Your task to perform on an android device: Show the shopping cart on amazon.com. Search for macbook pro 15 inch on amazon.com, select the first entry, and add it to the cart. Image 0: 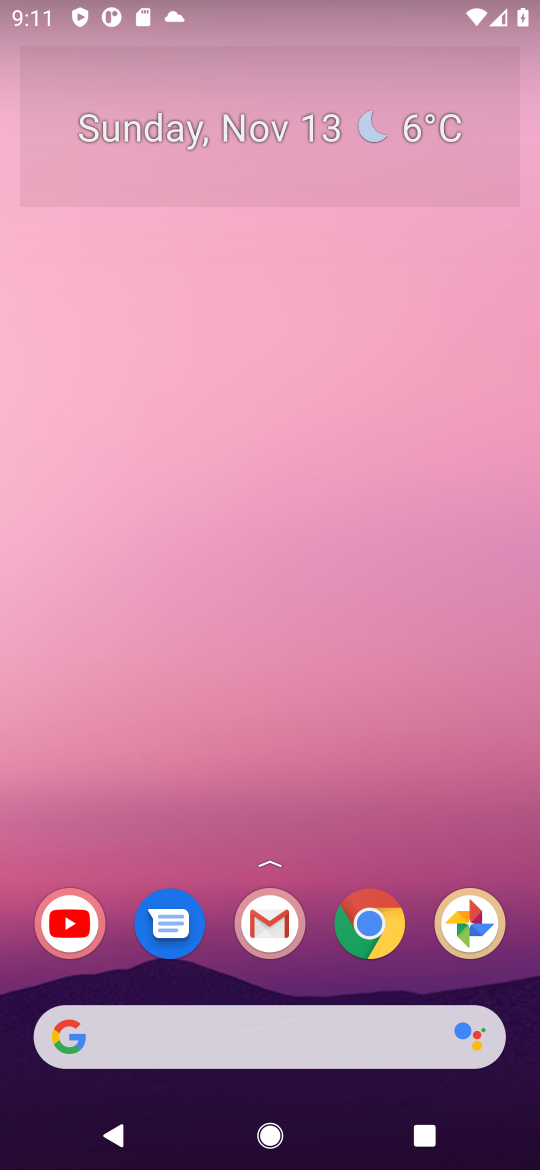
Step 0: click (391, 915)
Your task to perform on an android device: Show the shopping cart on amazon.com. Search for macbook pro 15 inch on amazon.com, select the first entry, and add it to the cart. Image 1: 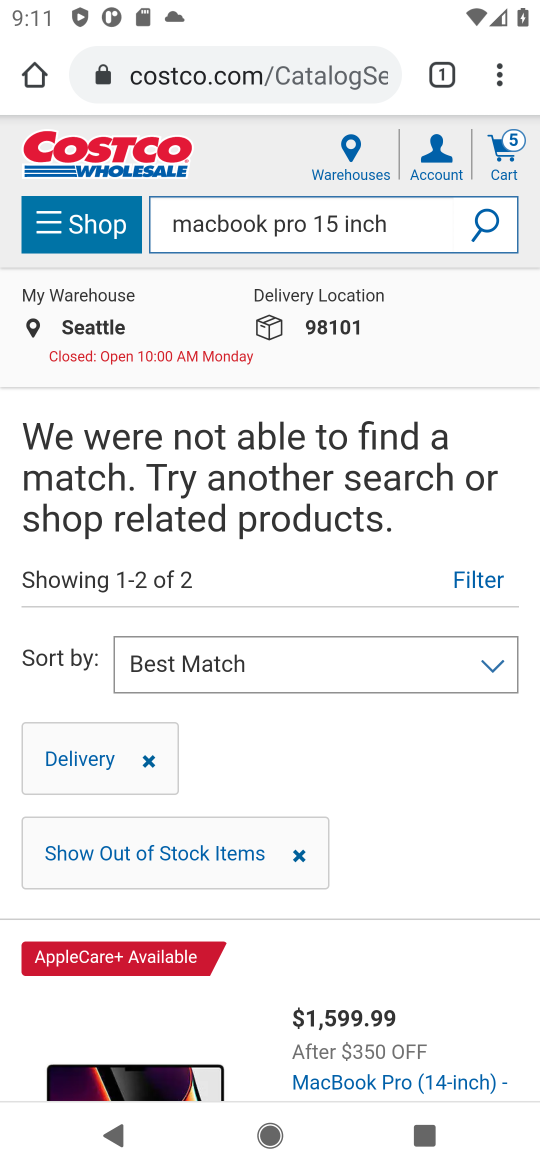
Step 1: click (303, 69)
Your task to perform on an android device: Show the shopping cart on amazon.com. Search for macbook pro 15 inch on amazon.com, select the first entry, and add it to the cart. Image 2: 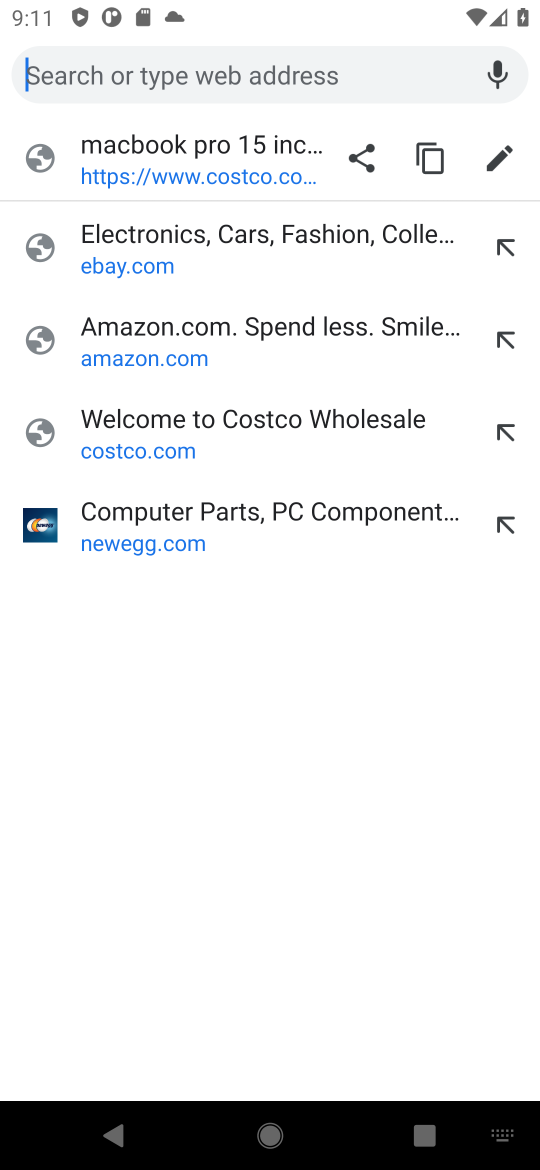
Step 2: click (251, 331)
Your task to perform on an android device: Show the shopping cart on amazon.com. Search for macbook pro 15 inch on amazon.com, select the first entry, and add it to the cart. Image 3: 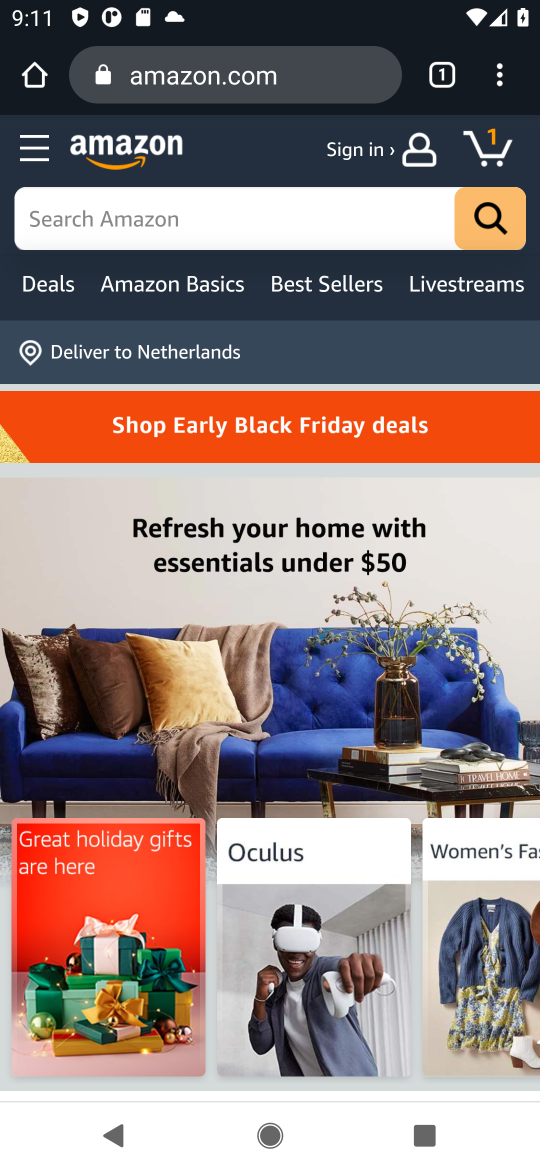
Step 3: click (248, 213)
Your task to perform on an android device: Show the shopping cart on amazon.com. Search for macbook pro 15 inch on amazon.com, select the first entry, and add it to the cart. Image 4: 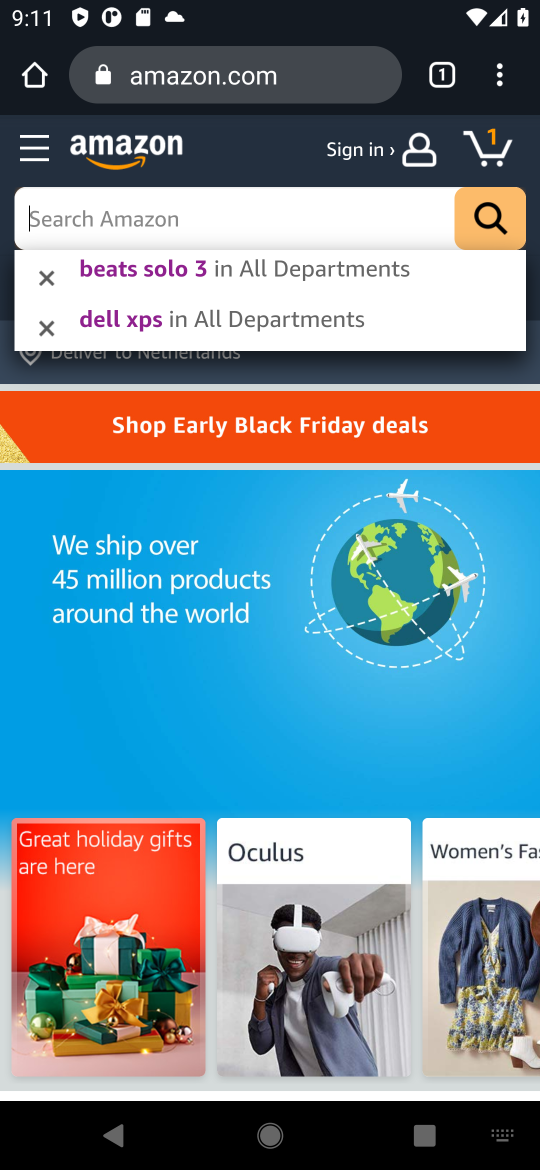
Step 4: press enter
Your task to perform on an android device: Show the shopping cart on amazon.com. Search for macbook pro 15 inch on amazon.com, select the first entry, and add it to the cart. Image 5: 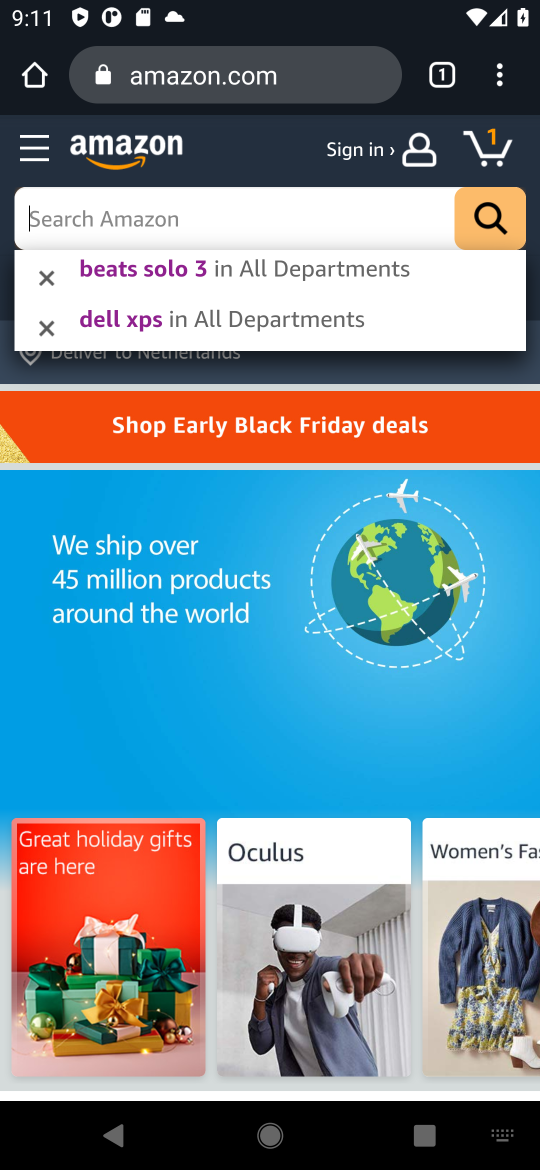
Step 5: type "macbook pro 15 inch"
Your task to perform on an android device: Show the shopping cart on amazon.com. Search for macbook pro 15 inch on amazon.com, select the first entry, and add it to the cart. Image 6: 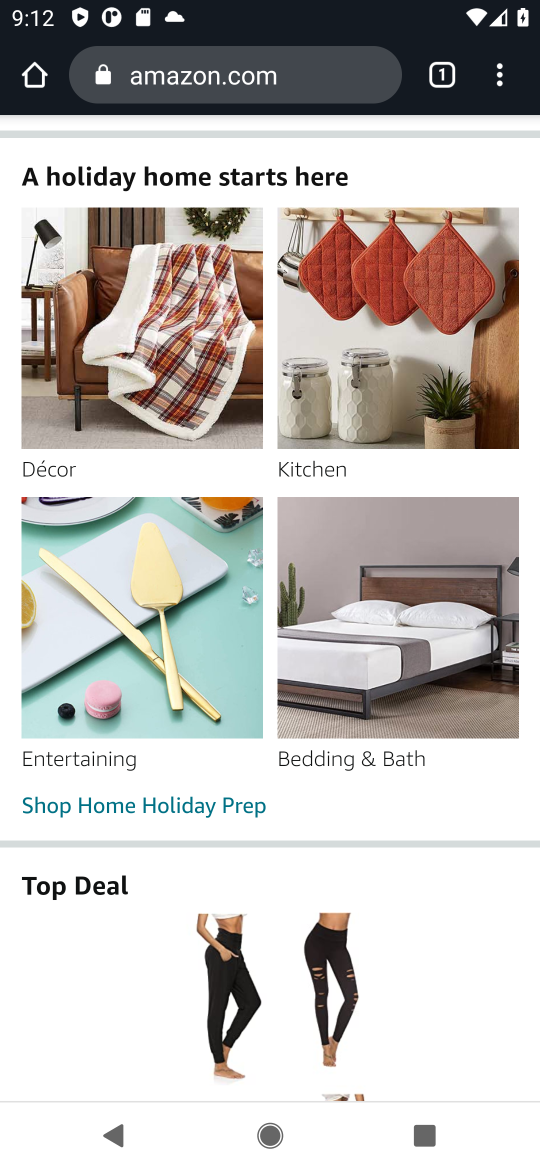
Step 6: drag from (366, 205) to (440, 978)
Your task to perform on an android device: Show the shopping cart on amazon.com. Search for macbook pro 15 inch on amazon.com, select the first entry, and add it to the cart. Image 7: 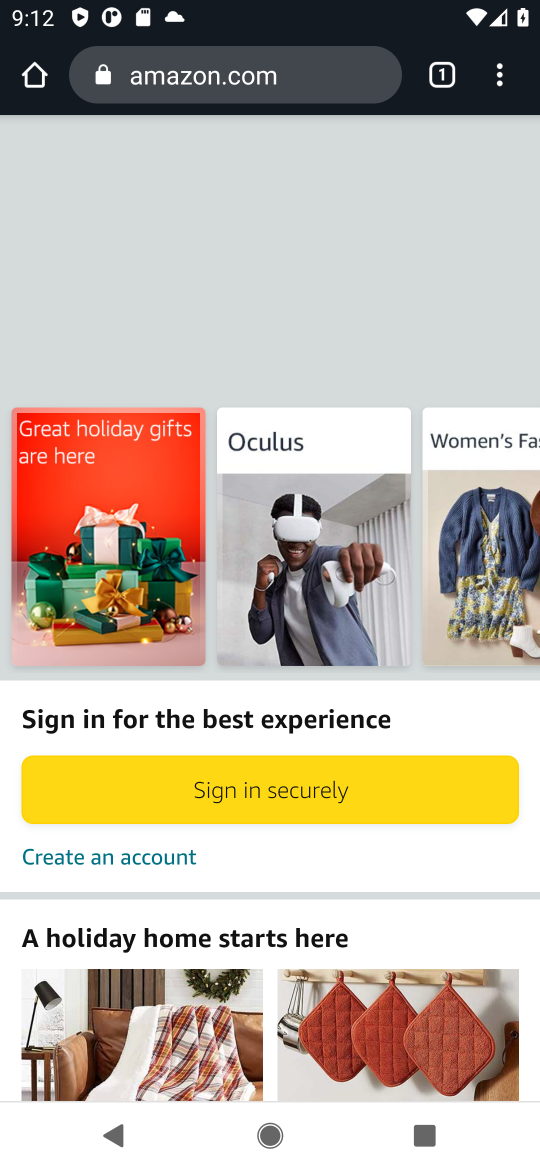
Step 7: drag from (302, 280) to (445, 896)
Your task to perform on an android device: Show the shopping cart on amazon.com. Search for macbook pro 15 inch on amazon.com, select the first entry, and add it to the cart. Image 8: 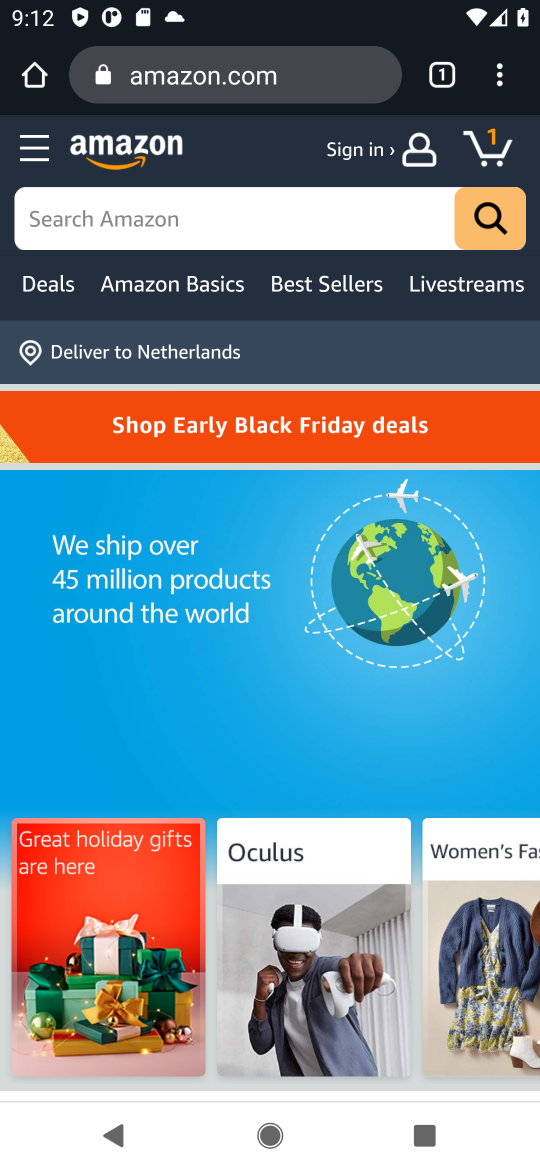
Step 8: click (293, 223)
Your task to perform on an android device: Show the shopping cart on amazon.com. Search for macbook pro 15 inch on amazon.com, select the first entry, and add it to the cart. Image 9: 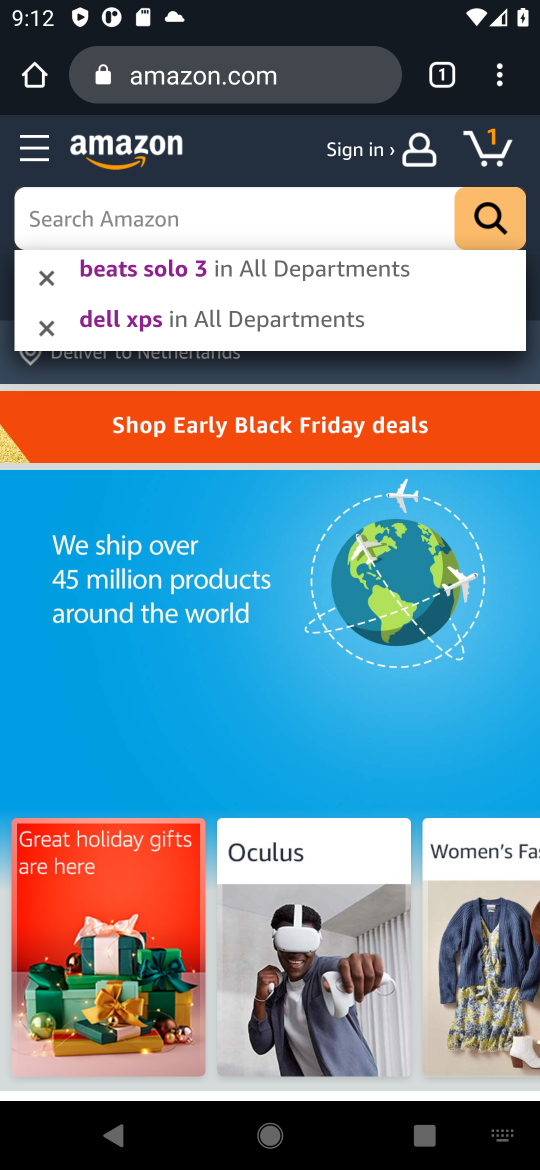
Step 9: press enter
Your task to perform on an android device: Show the shopping cart on amazon.com. Search for macbook pro 15 inch on amazon.com, select the first entry, and add it to the cart. Image 10: 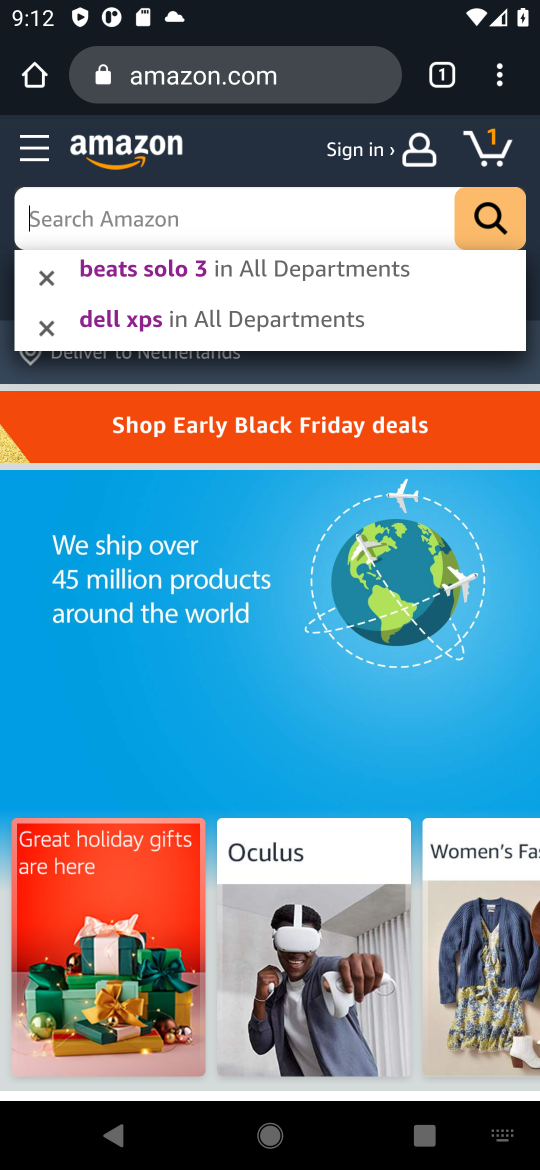
Step 10: type "macbook pro 15 inch"
Your task to perform on an android device: Show the shopping cart on amazon.com. Search for macbook pro 15 inch on amazon.com, select the first entry, and add it to the cart. Image 11: 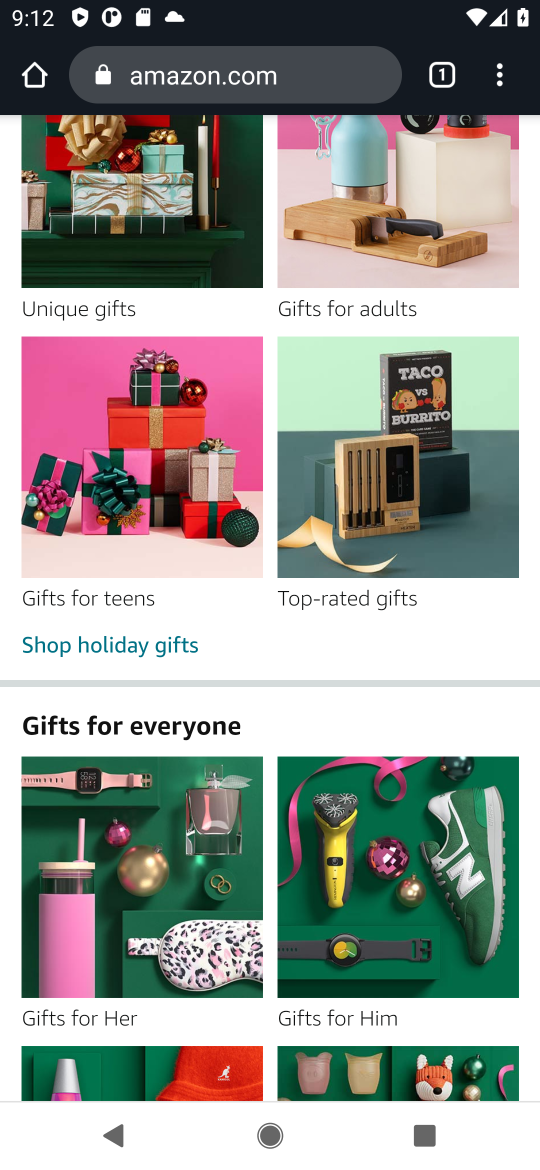
Step 11: press back button
Your task to perform on an android device: Show the shopping cart on amazon.com. Search for macbook pro 15 inch on amazon.com, select the first entry, and add it to the cart. Image 12: 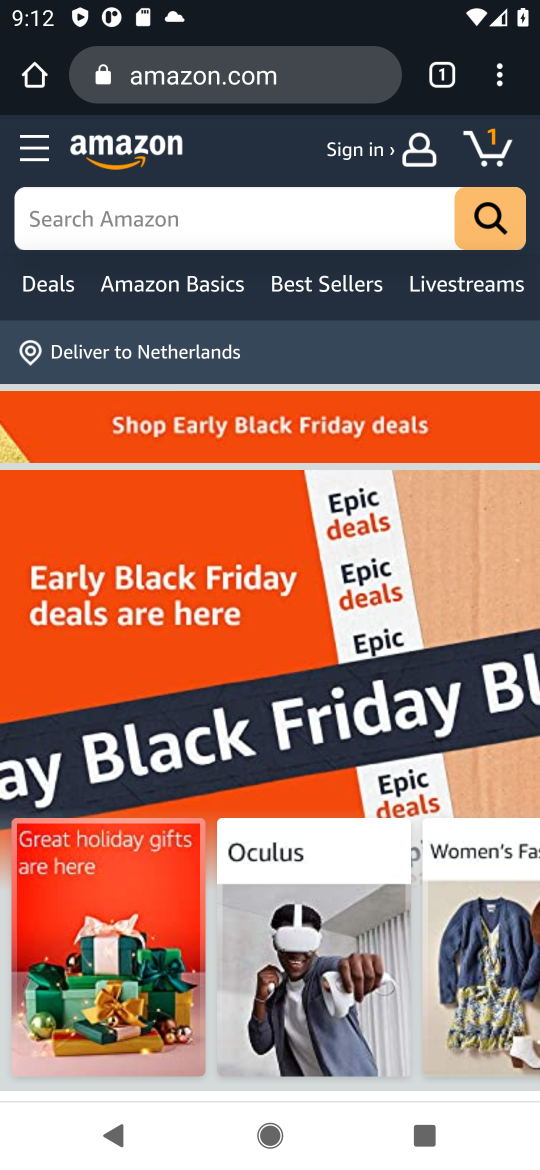
Step 12: click (307, 213)
Your task to perform on an android device: Show the shopping cart on amazon.com. Search for macbook pro 15 inch on amazon.com, select the first entry, and add it to the cart. Image 13: 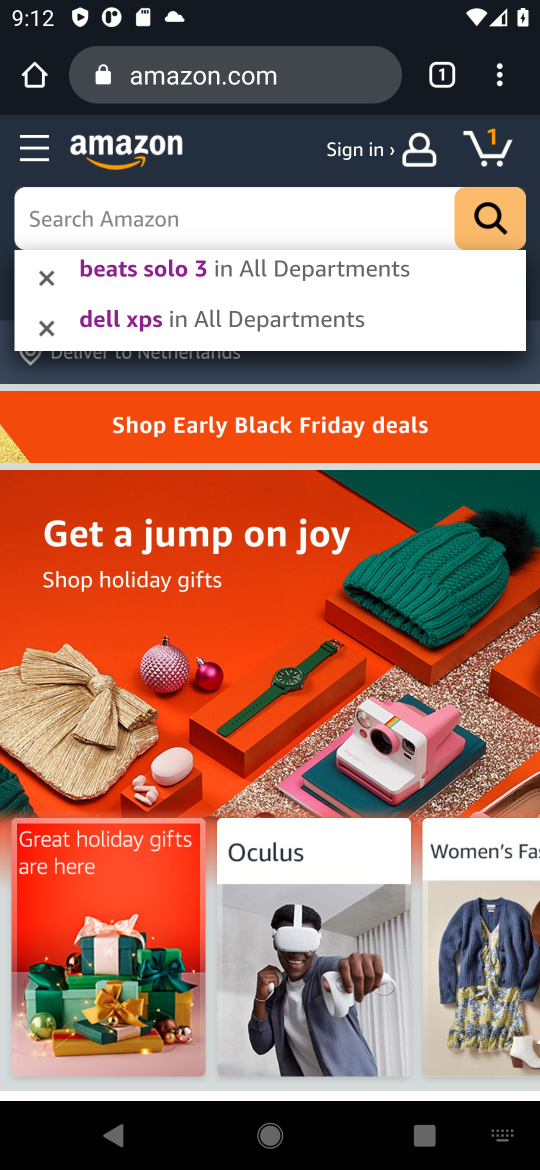
Step 13: press enter
Your task to perform on an android device: Show the shopping cart on amazon.com. Search for macbook pro 15 inch on amazon.com, select the first entry, and add it to the cart. Image 14: 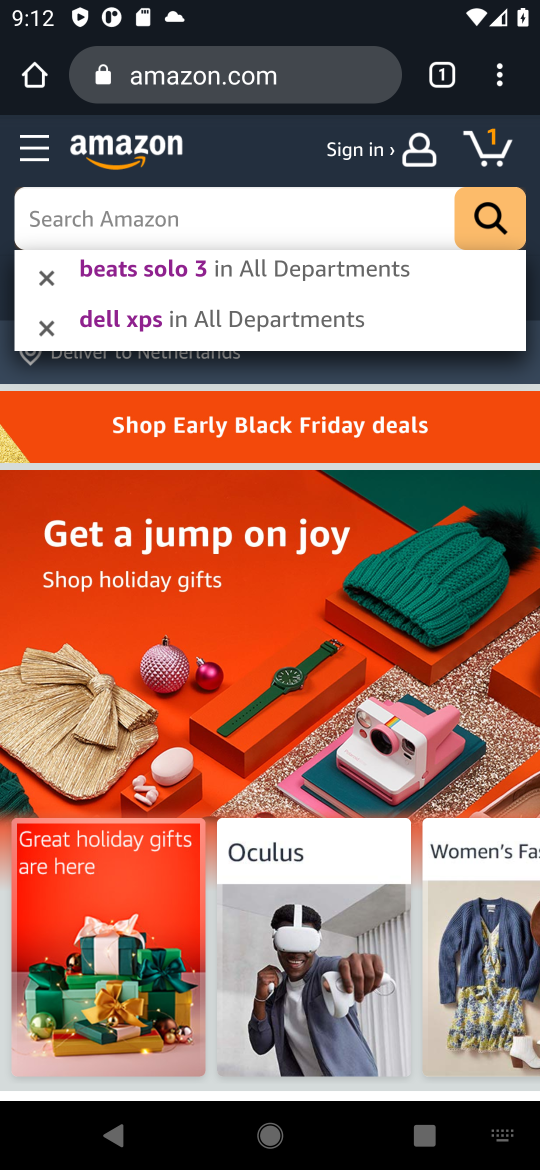
Step 14: type "macbook pro 15 inch"
Your task to perform on an android device: Show the shopping cart on amazon.com. Search for macbook pro 15 inch on amazon.com, select the first entry, and add it to the cart. Image 15: 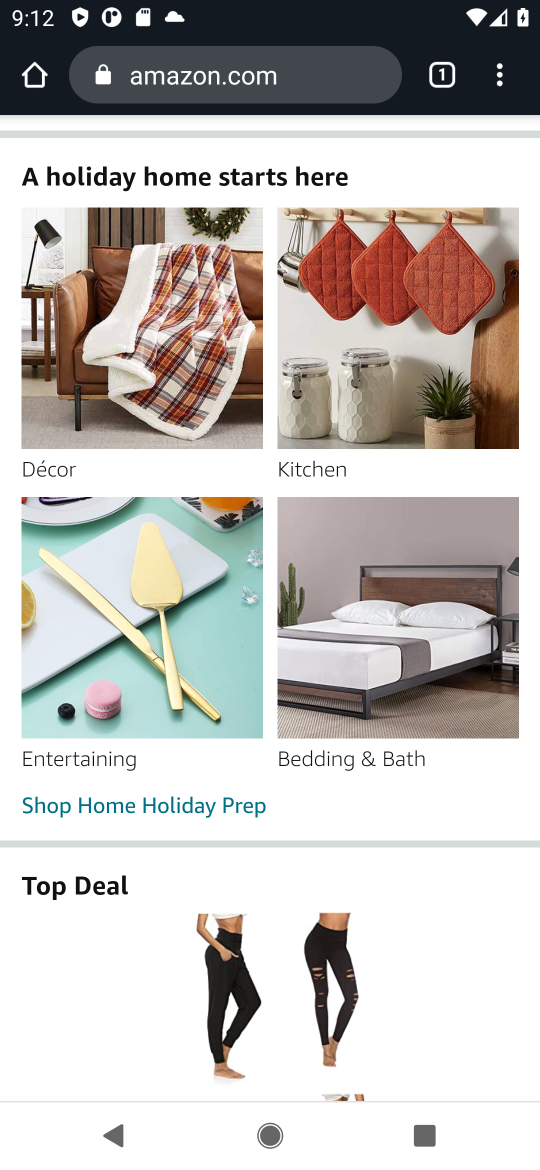
Step 15: task complete